Your task to perform on an android device: manage bookmarks in the chrome app Image 0: 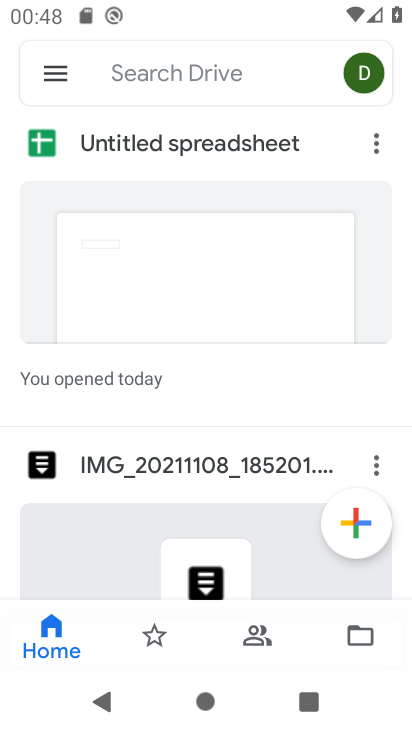
Step 0: press home button
Your task to perform on an android device: manage bookmarks in the chrome app Image 1: 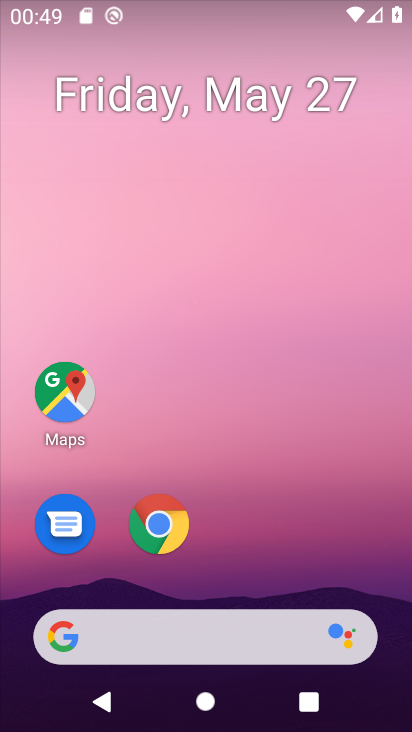
Step 1: click (170, 522)
Your task to perform on an android device: manage bookmarks in the chrome app Image 2: 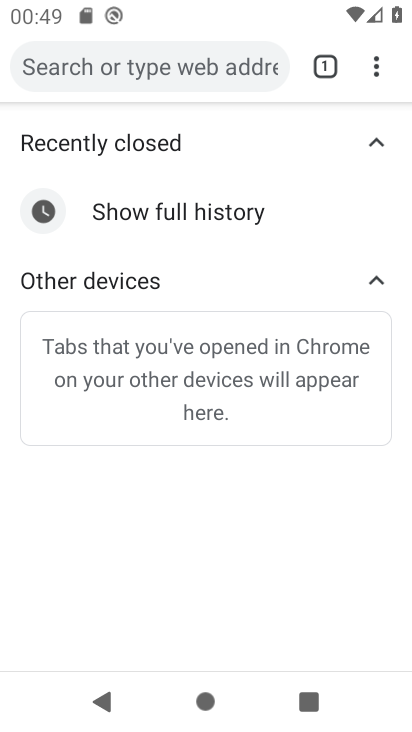
Step 2: click (373, 61)
Your task to perform on an android device: manage bookmarks in the chrome app Image 3: 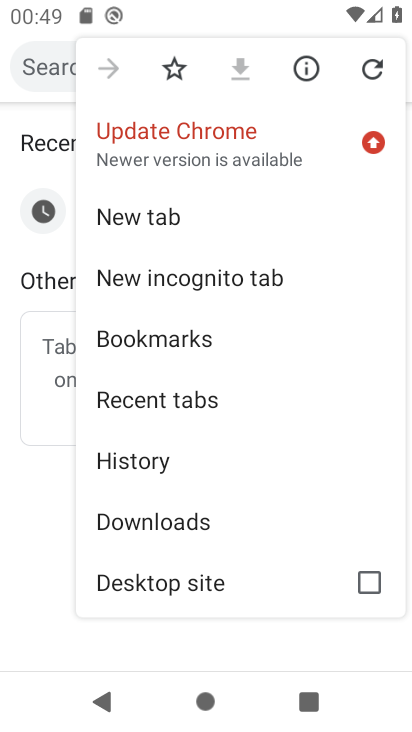
Step 3: click (205, 346)
Your task to perform on an android device: manage bookmarks in the chrome app Image 4: 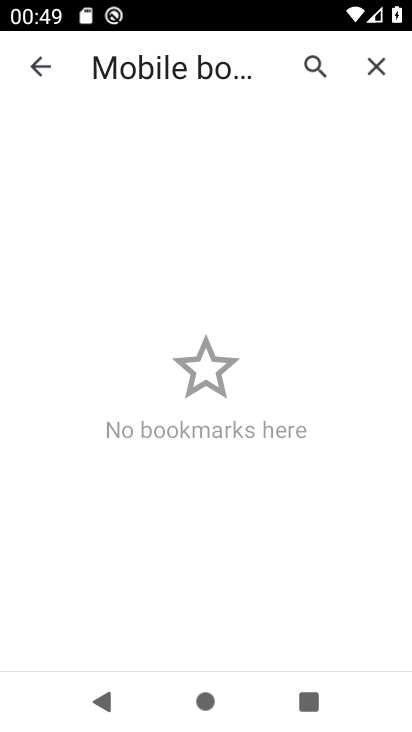
Step 4: task complete